Your task to perform on an android device: stop showing notifications on the lock screen Image 0: 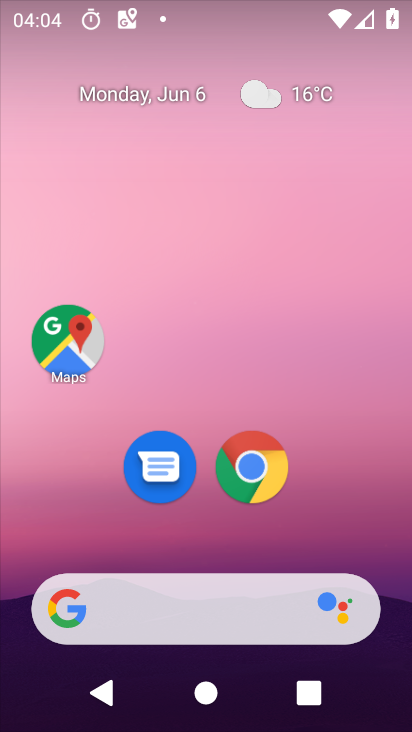
Step 0: drag from (213, 543) to (206, 75)
Your task to perform on an android device: stop showing notifications on the lock screen Image 1: 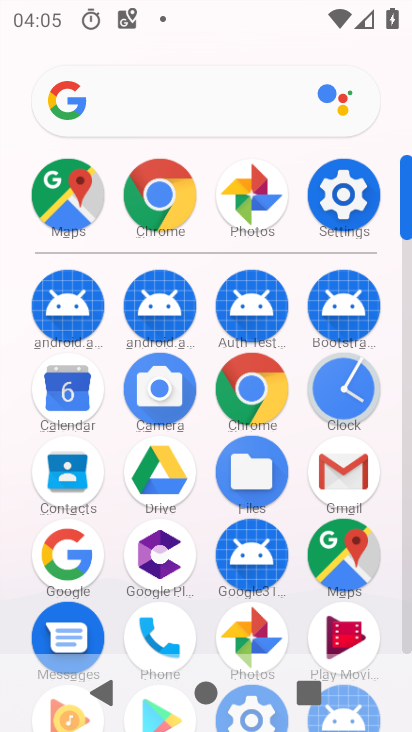
Step 1: click (341, 187)
Your task to perform on an android device: stop showing notifications on the lock screen Image 2: 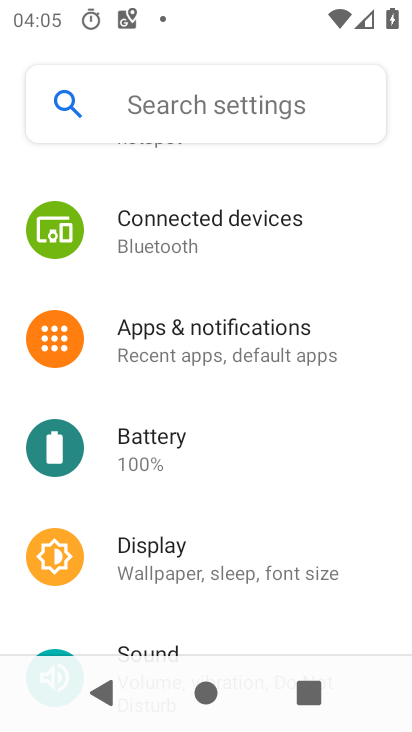
Step 2: click (252, 332)
Your task to perform on an android device: stop showing notifications on the lock screen Image 3: 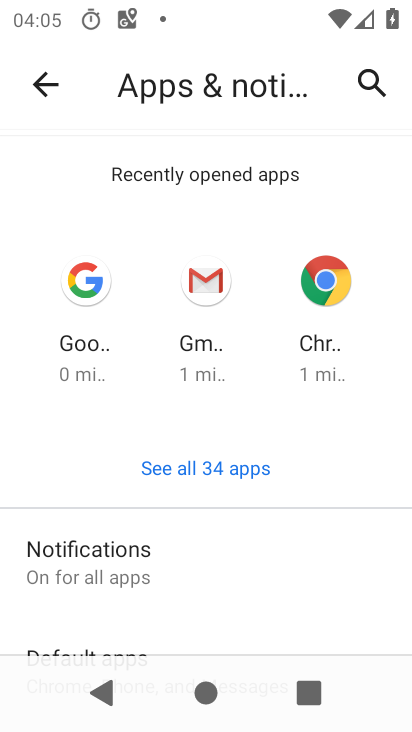
Step 3: click (159, 560)
Your task to perform on an android device: stop showing notifications on the lock screen Image 4: 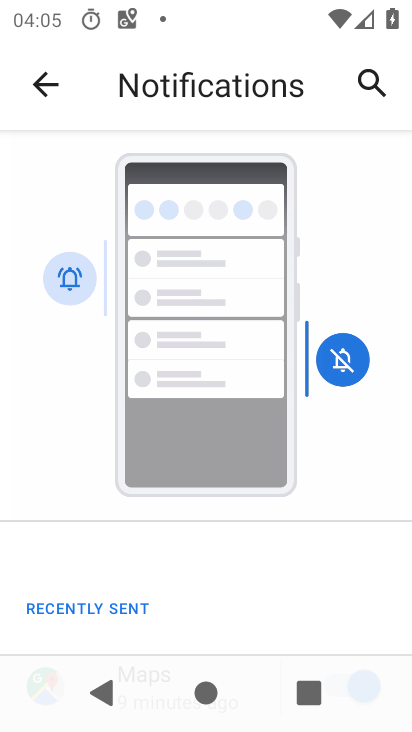
Step 4: drag from (213, 626) to (257, 55)
Your task to perform on an android device: stop showing notifications on the lock screen Image 5: 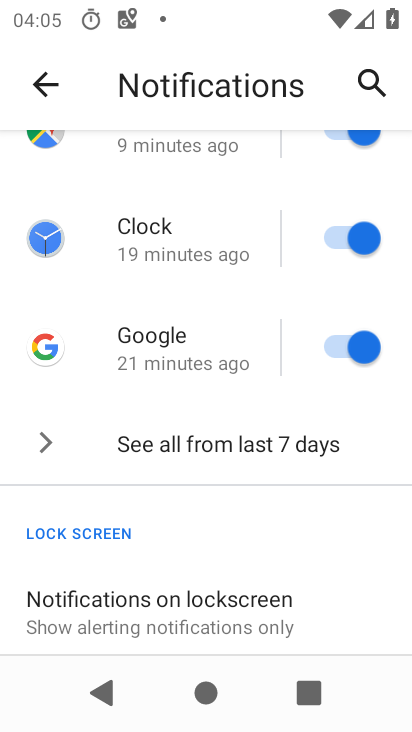
Step 5: click (311, 611)
Your task to perform on an android device: stop showing notifications on the lock screen Image 6: 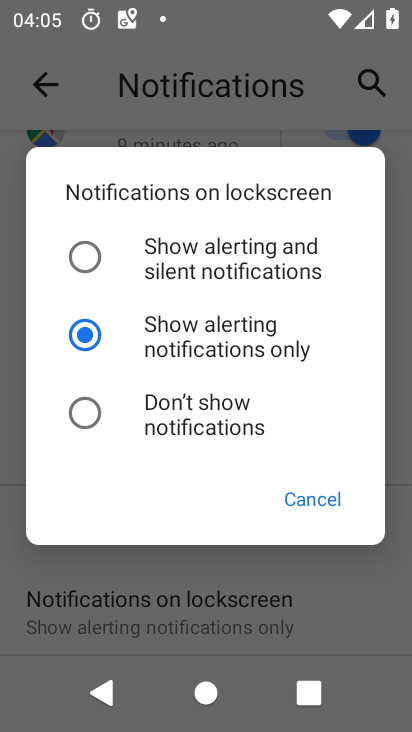
Step 6: click (81, 409)
Your task to perform on an android device: stop showing notifications on the lock screen Image 7: 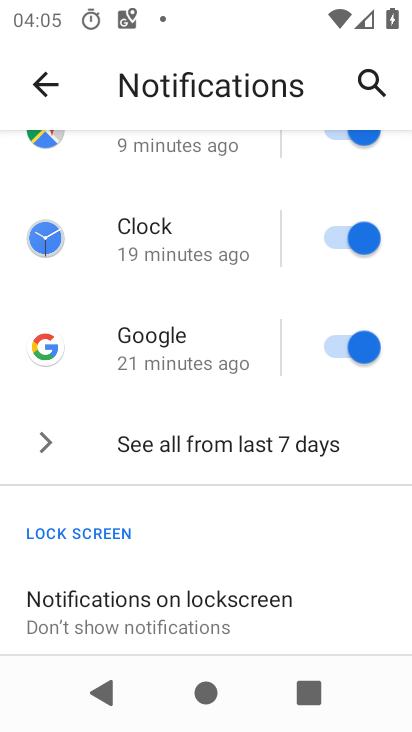
Step 7: task complete